Your task to perform on an android device: check data usage Image 0: 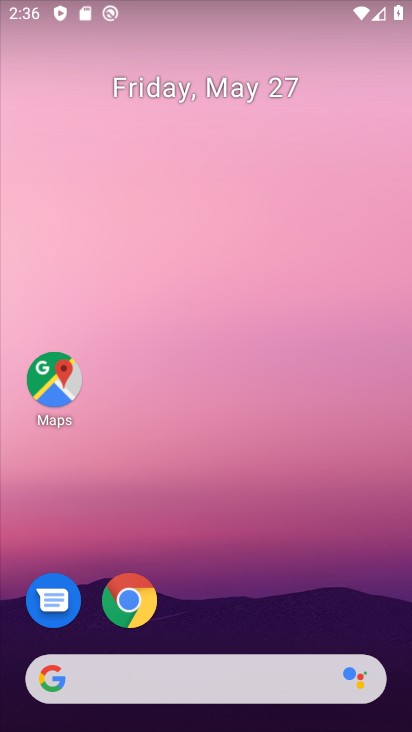
Step 0: drag from (298, 15) to (262, 187)
Your task to perform on an android device: check data usage Image 1: 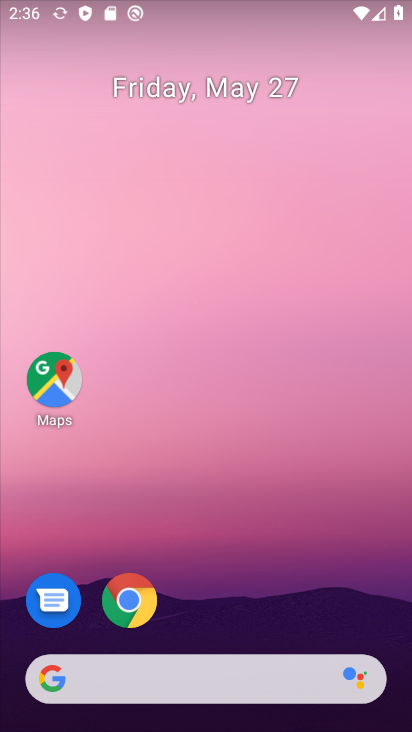
Step 1: drag from (381, 3) to (320, 389)
Your task to perform on an android device: check data usage Image 2: 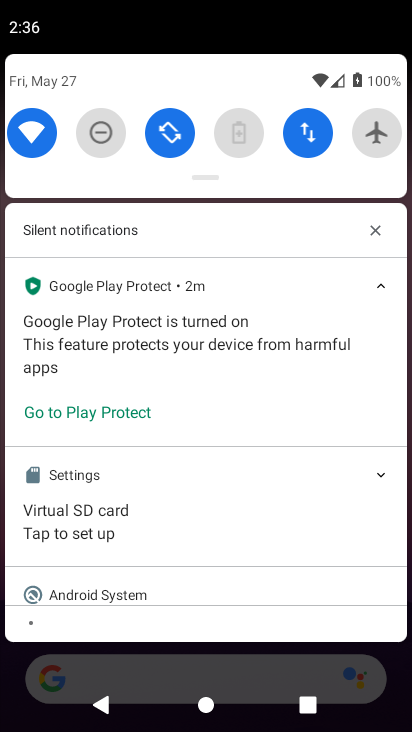
Step 2: click (315, 131)
Your task to perform on an android device: check data usage Image 3: 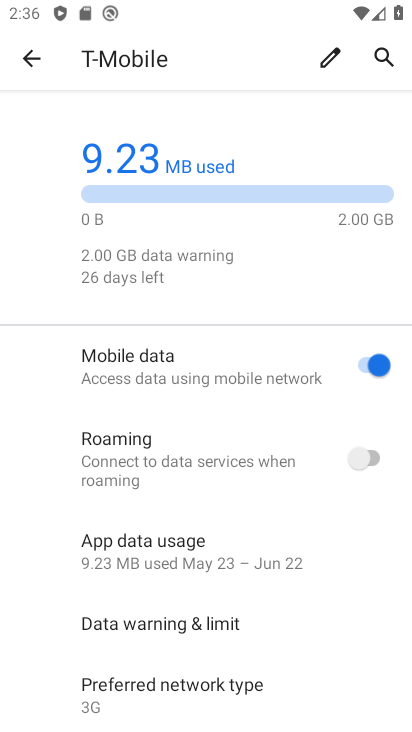
Step 3: task complete